Your task to perform on an android device: open app "AliExpress" Image 0: 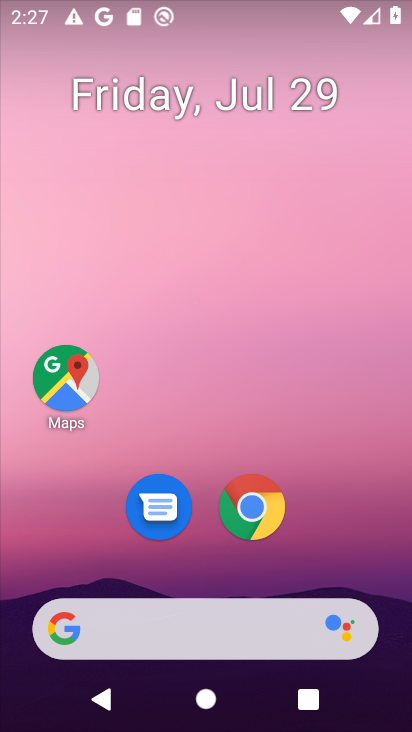
Step 0: click (272, 620)
Your task to perform on an android device: open app "AliExpress" Image 1: 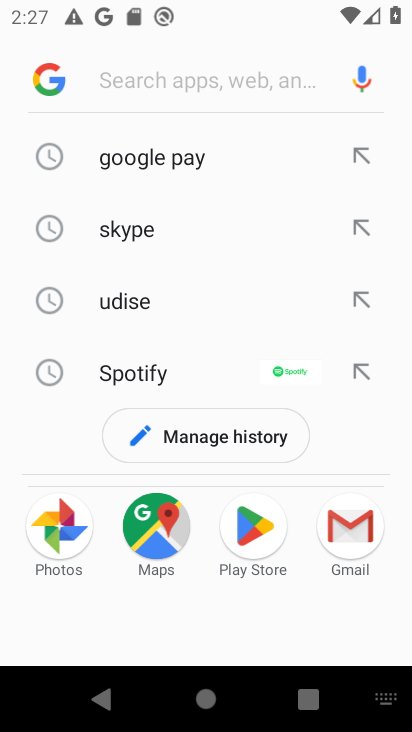
Step 1: type "aliexpress"
Your task to perform on an android device: open app "AliExpress" Image 2: 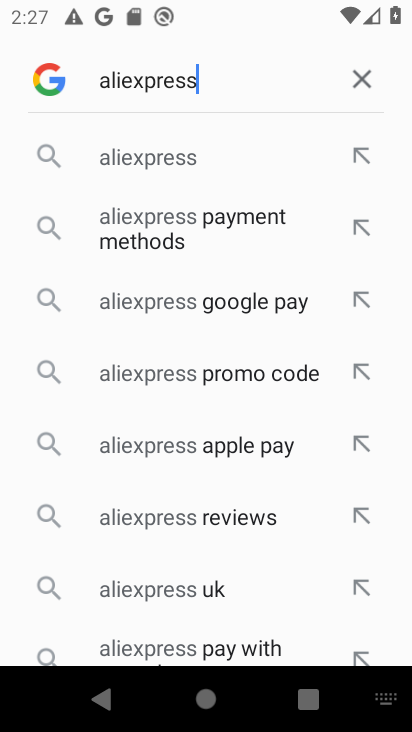
Step 2: click (158, 155)
Your task to perform on an android device: open app "AliExpress" Image 3: 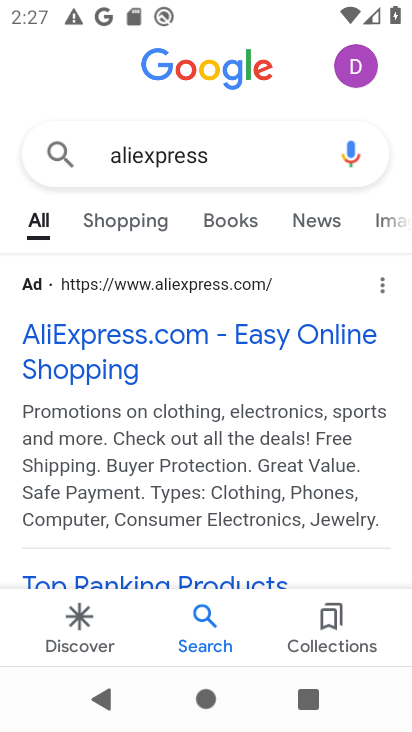
Step 3: click (203, 325)
Your task to perform on an android device: open app "AliExpress" Image 4: 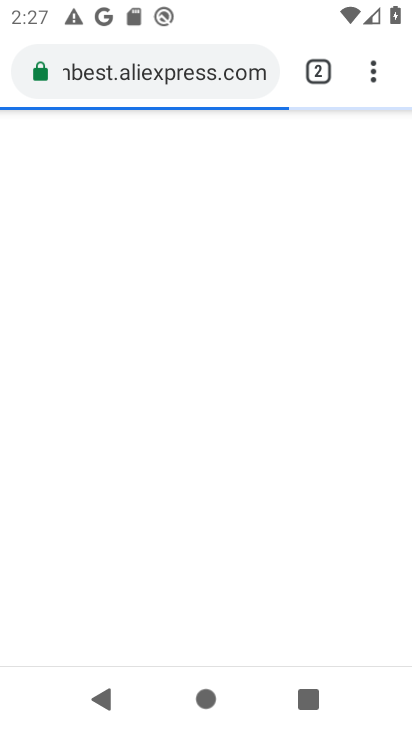
Step 4: task complete